Your task to perform on an android device: turn off notifications settings in the gmail app Image 0: 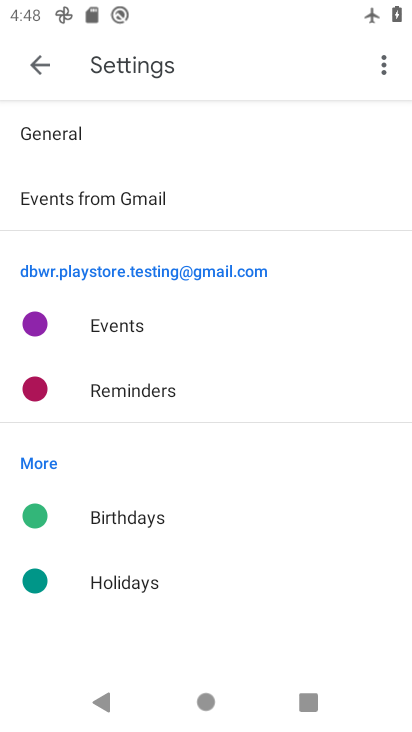
Step 0: press home button
Your task to perform on an android device: turn off notifications settings in the gmail app Image 1: 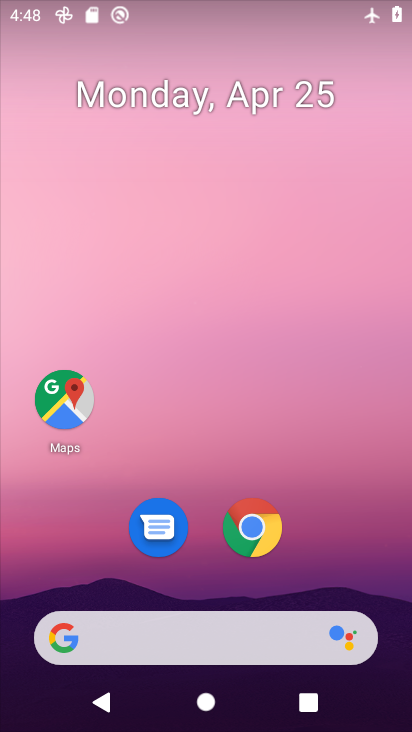
Step 1: drag from (394, 624) to (346, 107)
Your task to perform on an android device: turn off notifications settings in the gmail app Image 2: 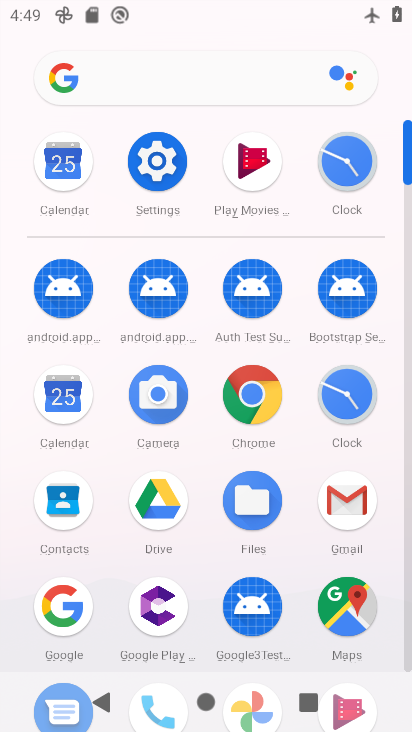
Step 2: click (409, 652)
Your task to perform on an android device: turn off notifications settings in the gmail app Image 3: 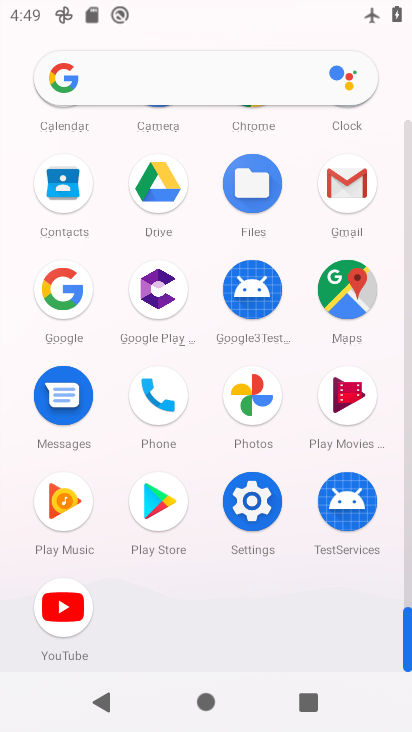
Step 3: click (342, 175)
Your task to perform on an android device: turn off notifications settings in the gmail app Image 4: 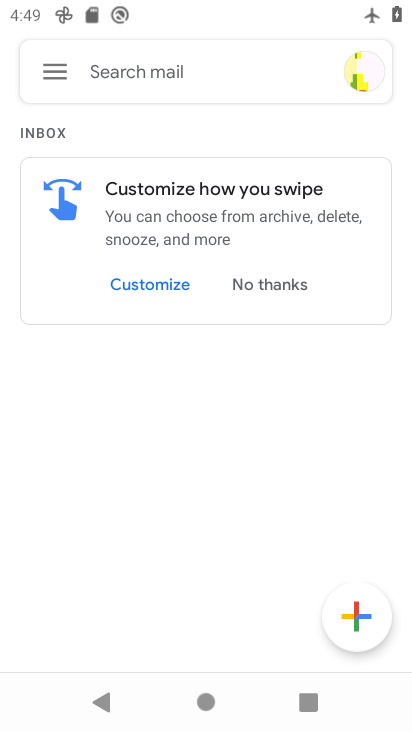
Step 4: click (57, 71)
Your task to perform on an android device: turn off notifications settings in the gmail app Image 5: 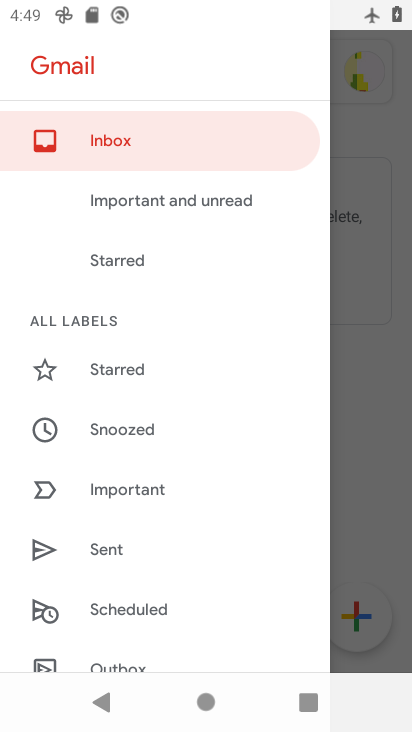
Step 5: drag from (226, 571) to (267, 281)
Your task to perform on an android device: turn off notifications settings in the gmail app Image 6: 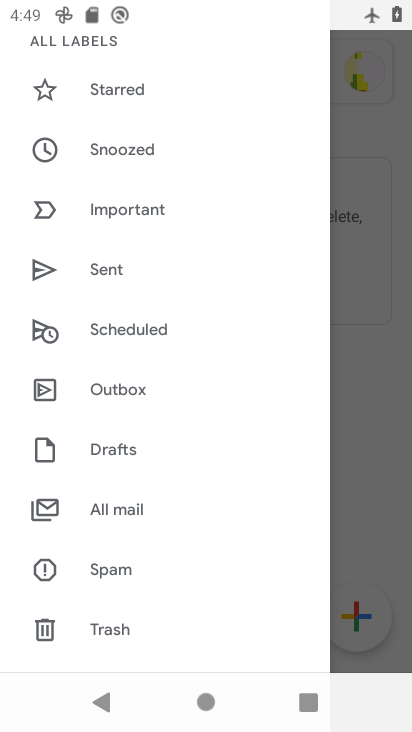
Step 6: drag from (233, 542) to (282, 198)
Your task to perform on an android device: turn off notifications settings in the gmail app Image 7: 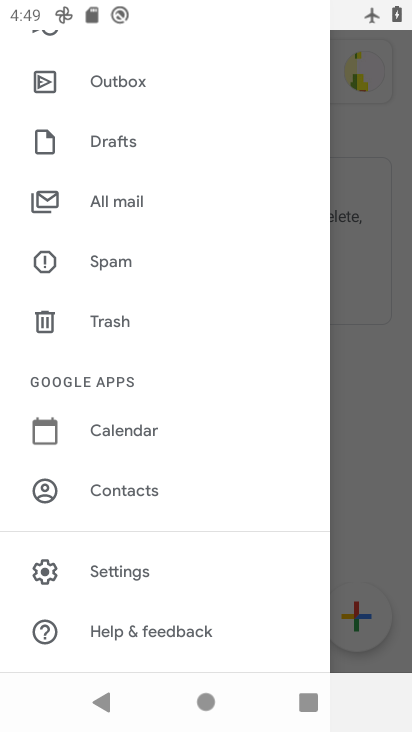
Step 7: click (100, 568)
Your task to perform on an android device: turn off notifications settings in the gmail app Image 8: 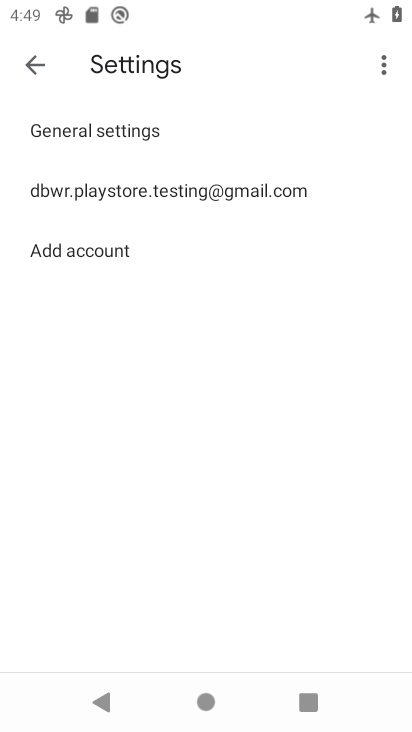
Step 8: click (151, 189)
Your task to perform on an android device: turn off notifications settings in the gmail app Image 9: 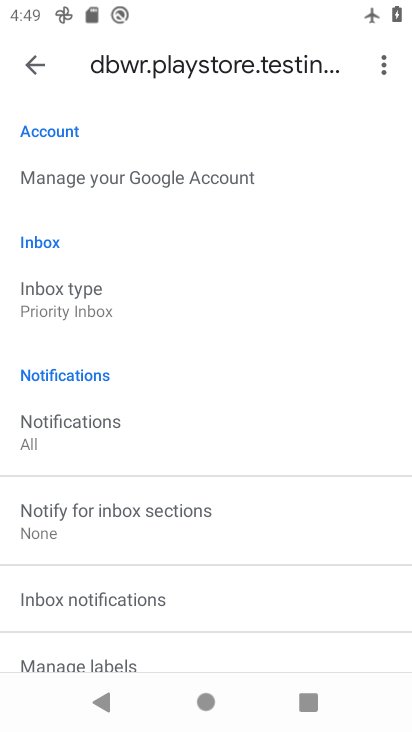
Step 9: drag from (183, 578) to (237, 288)
Your task to perform on an android device: turn off notifications settings in the gmail app Image 10: 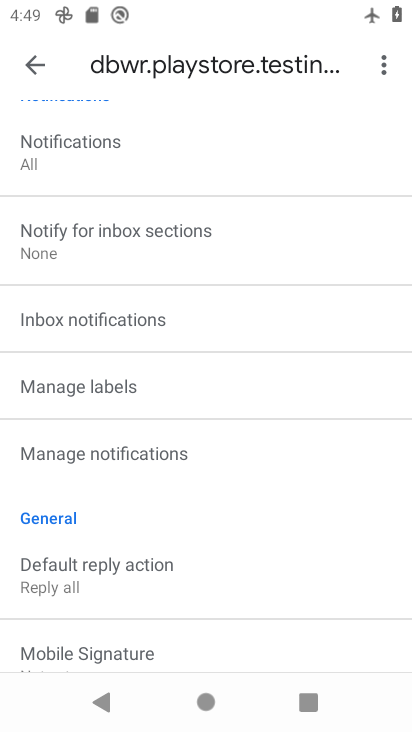
Step 10: click (110, 448)
Your task to perform on an android device: turn off notifications settings in the gmail app Image 11: 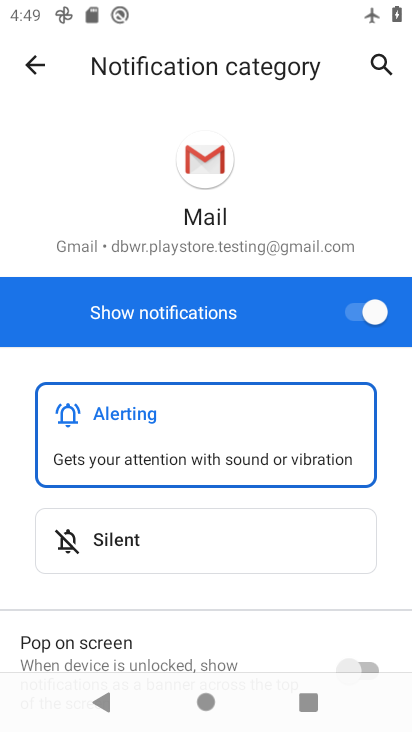
Step 11: click (350, 313)
Your task to perform on an android device: turn off notifications settings in the gmail app Image 12: 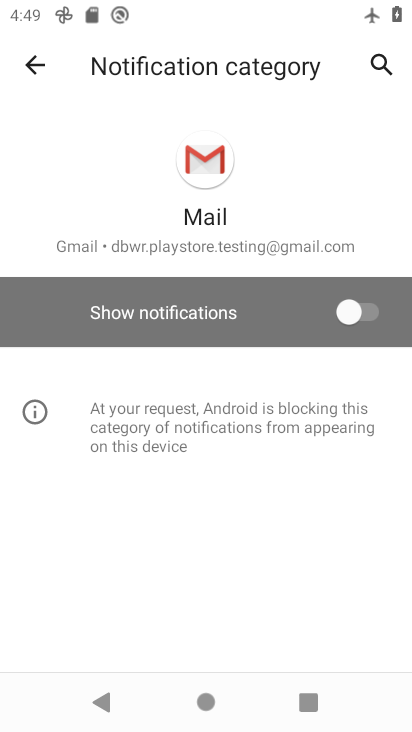
Step 12: task complete